Your task to perform on an android device: add a label to a message in the gmail app Image 0: 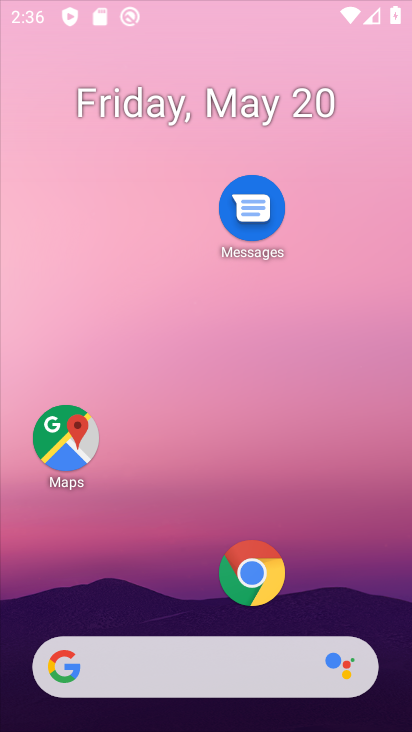
Step 0: drag from (153, 628) to (182, 19)
Your task to perform on an android device: add a label to a message in the gmail app Image 1: 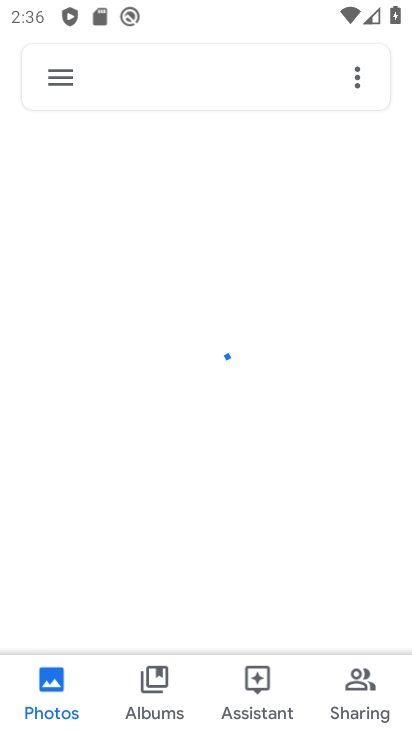
Step 1: press home button
Your task to perform on an android device: add a label to a message in the gmail app Image 2: 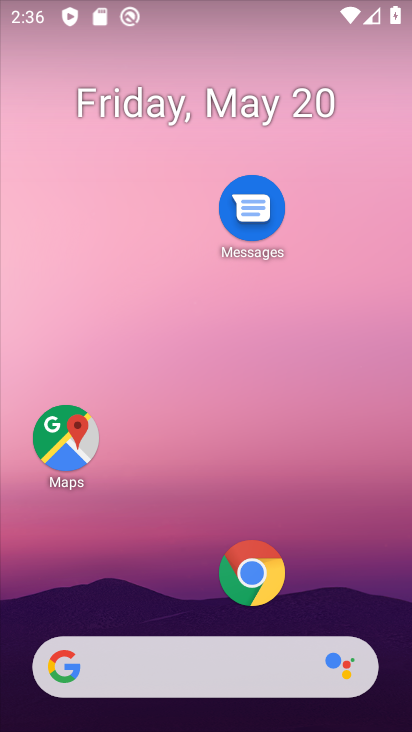
Step 2: drag from (187, 610) to (228, 22)
Your task to perform on an android device: add a label to a message in the gmail app Image 3: 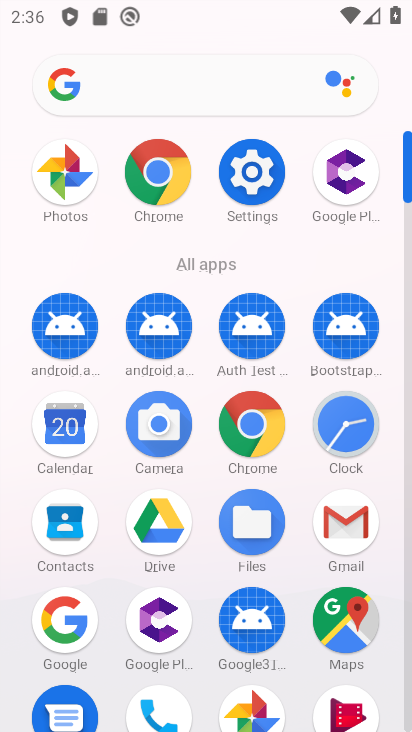
Step 3: click (340, 527)
Your task to perform on an android device: add a label to a message in the gmail app Image 4: 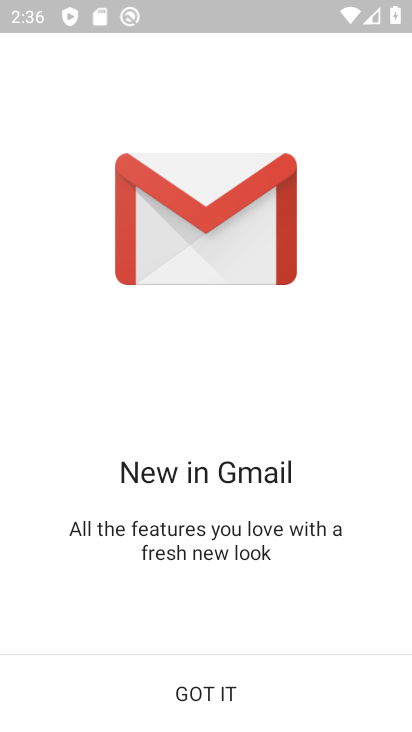
Step 4: click (177, 724)
Your task to perform on an android device: add a label to a message in the gmail app Image 5: 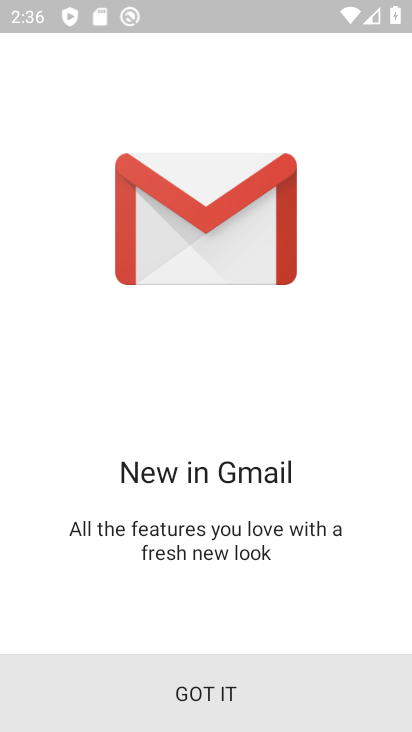
Step 5: click (195, 705)
Your task to perform on an android device: add a label to a message in the gmail app Image 6: 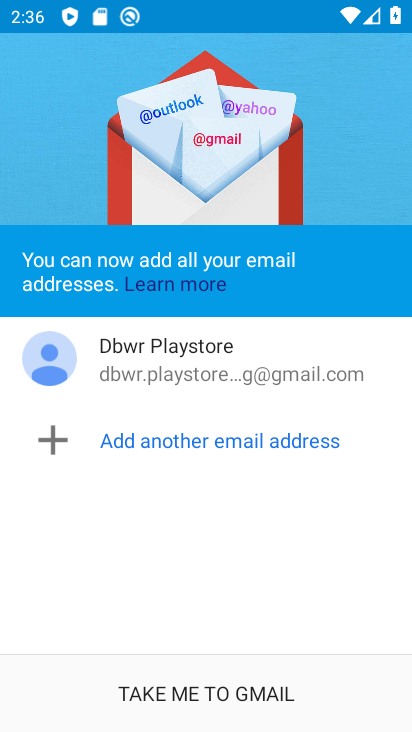
Step 6: click (195, 705)
Your task to perform on an android device: add a label to a message in the gmail app Image 7: 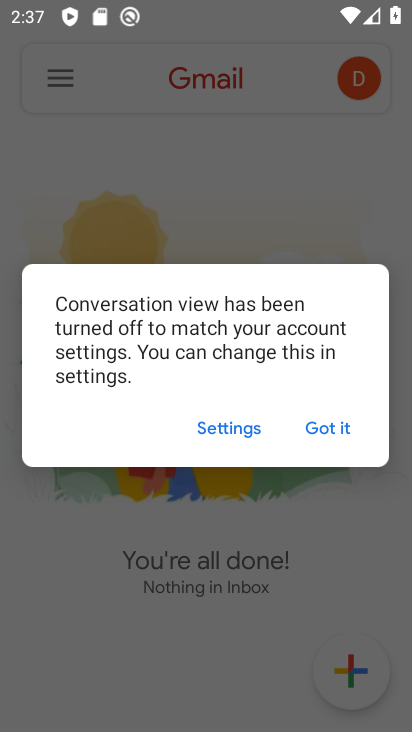
Step 7: click (359, 427)
Your task to perform on an android device: add a label to a message in the gmail app Image 8: 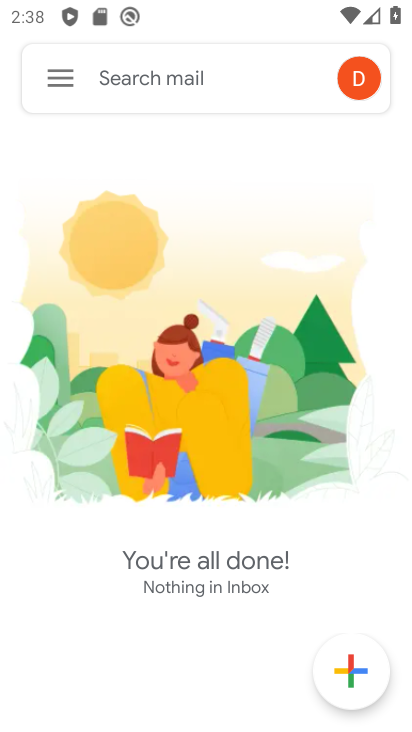
Step 8: task complete